Your task to perform on an android device: toggle data saver in the chrome app Image 0: 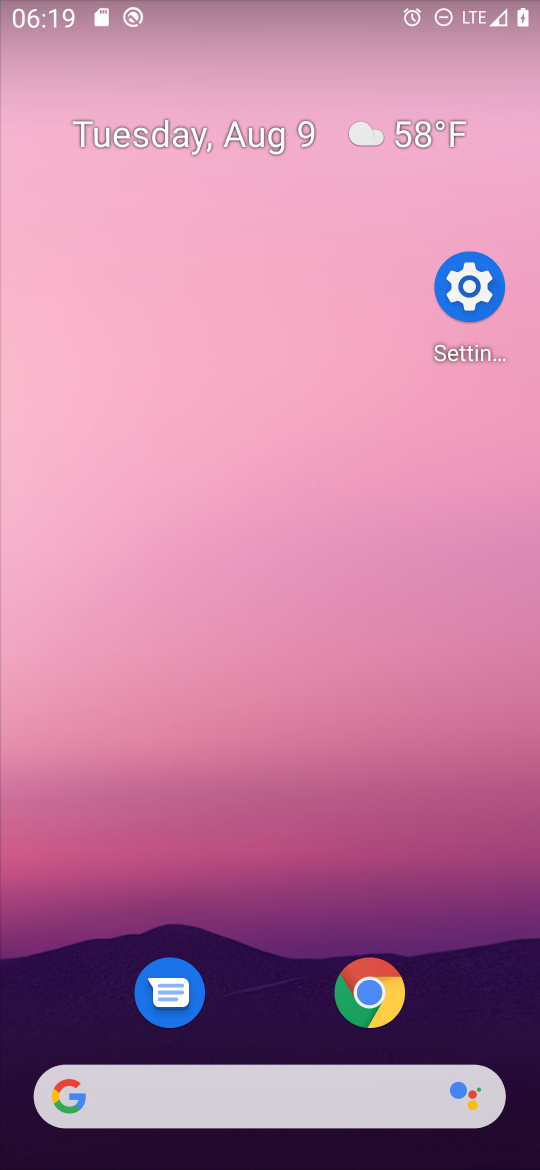
Step 0: drag from (344, 1117) to (268, 515)
Your task to perform on an android device: toggle data saver in the chrome app Image 1: 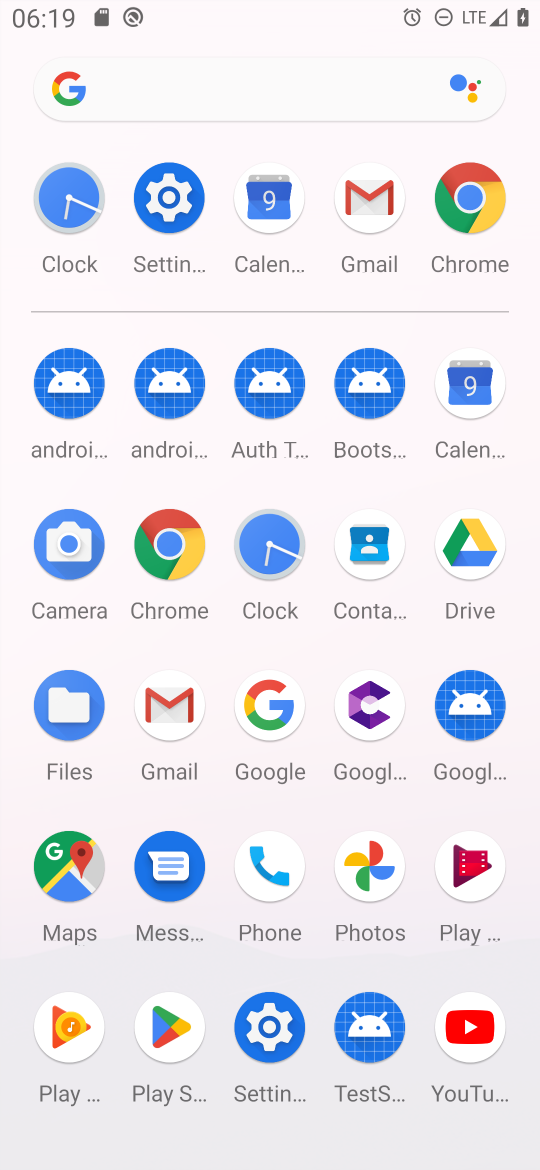
Step 1: click (156, 578)
Your task to perform on an android device: toggle data saver in the chrome app Image 2: 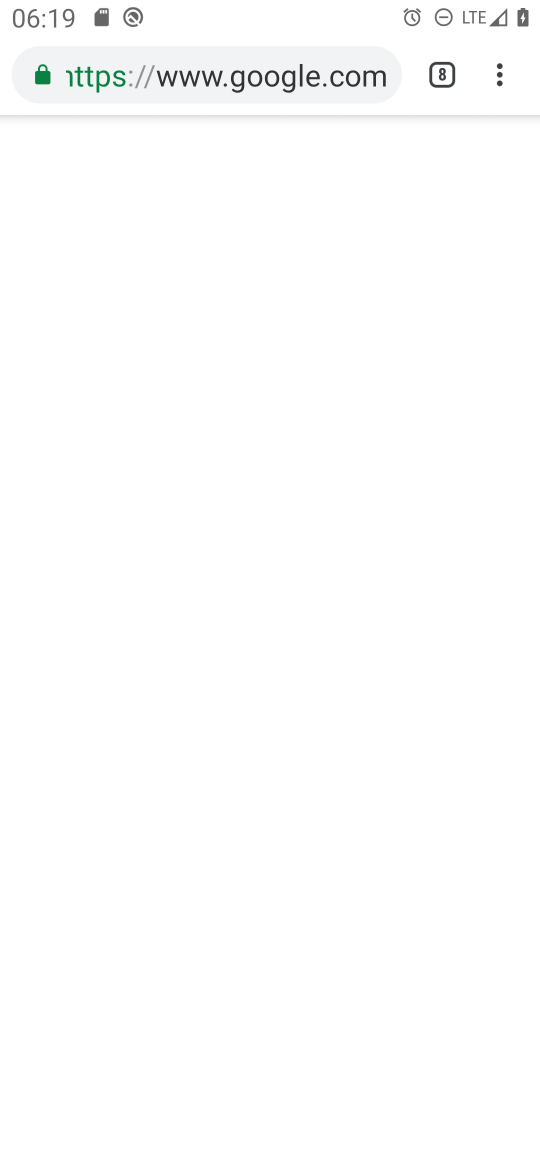
Step 2: click (496, 74)
Your task to perform on an android device: toggle data saver in the chrome app Image 3: 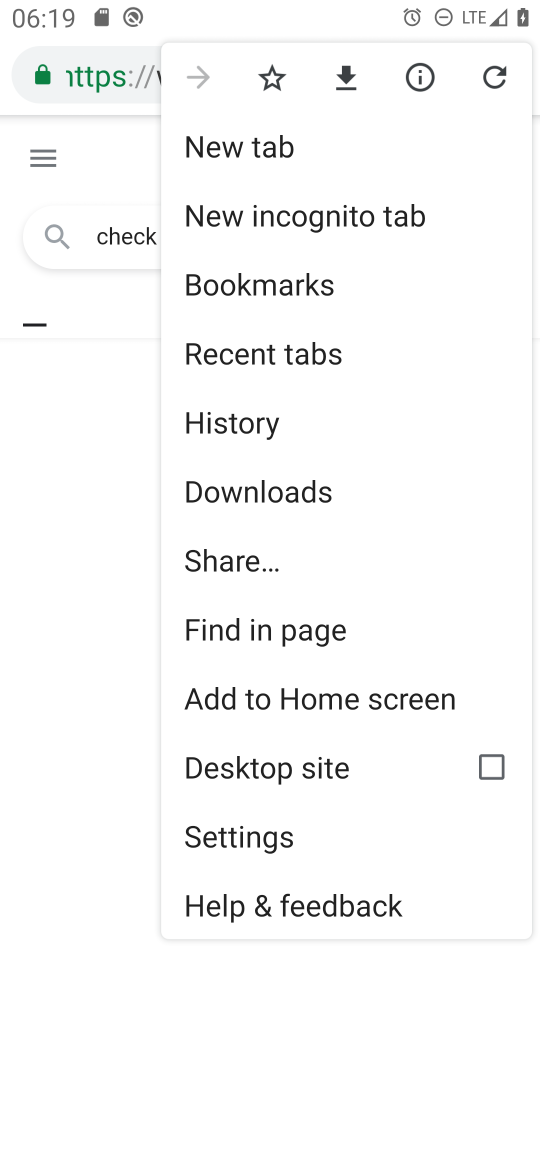
Step 3: click (250, 847)
Your task to perform on an android device: toggle data saver in the chrome app Image 4: 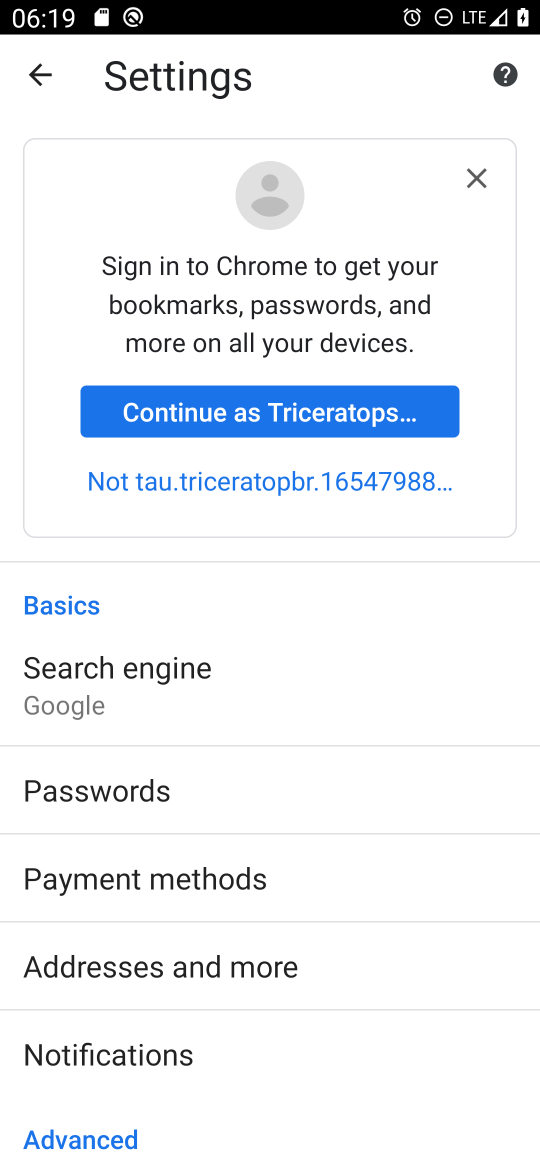
Step 4: drag from (300, 1059) to (263, 676)
Your task to perform on an android device: toggle data saver in the chrome app Image 5: 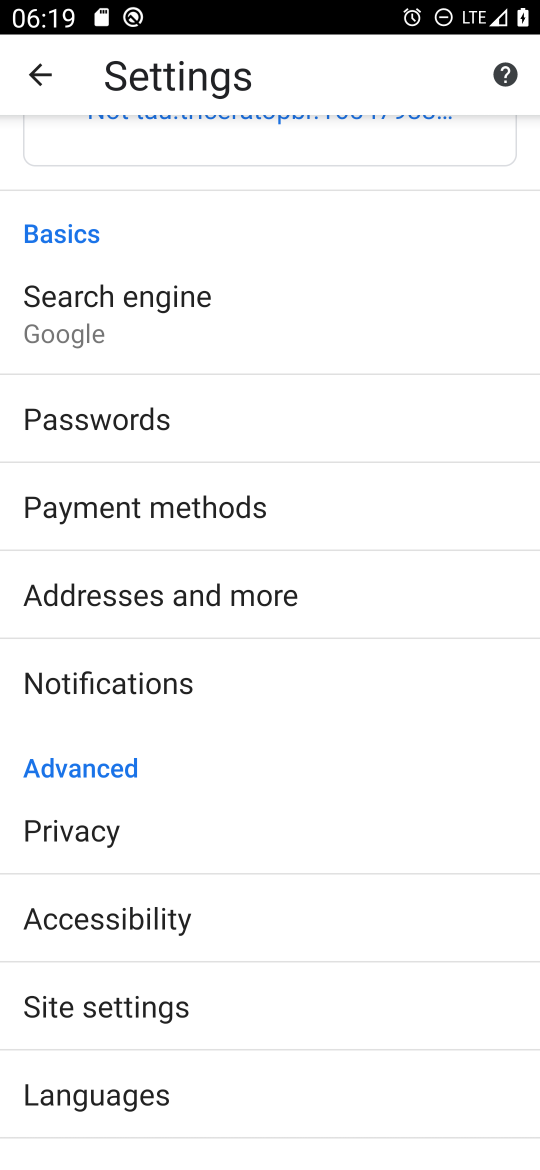
Step 5: drag from (389, 802) to (195, 164)
Your task to perform on an android device: toggle data saver in the chrome app Image 6: 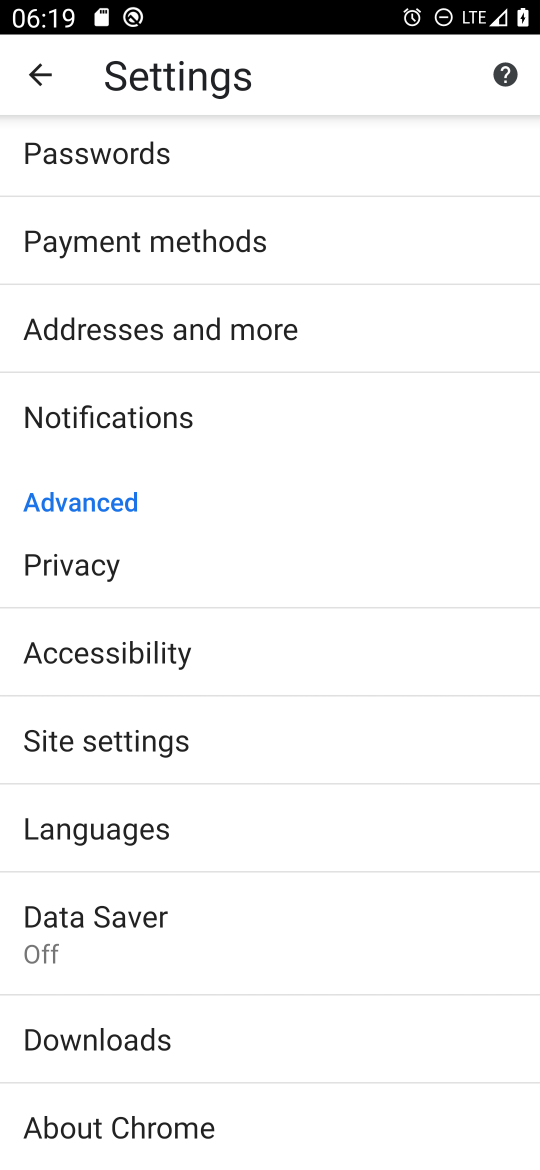
Step 6: click (130, 922)
Your task to perform on an android device: toggle data saver in the chrome app Image 7: 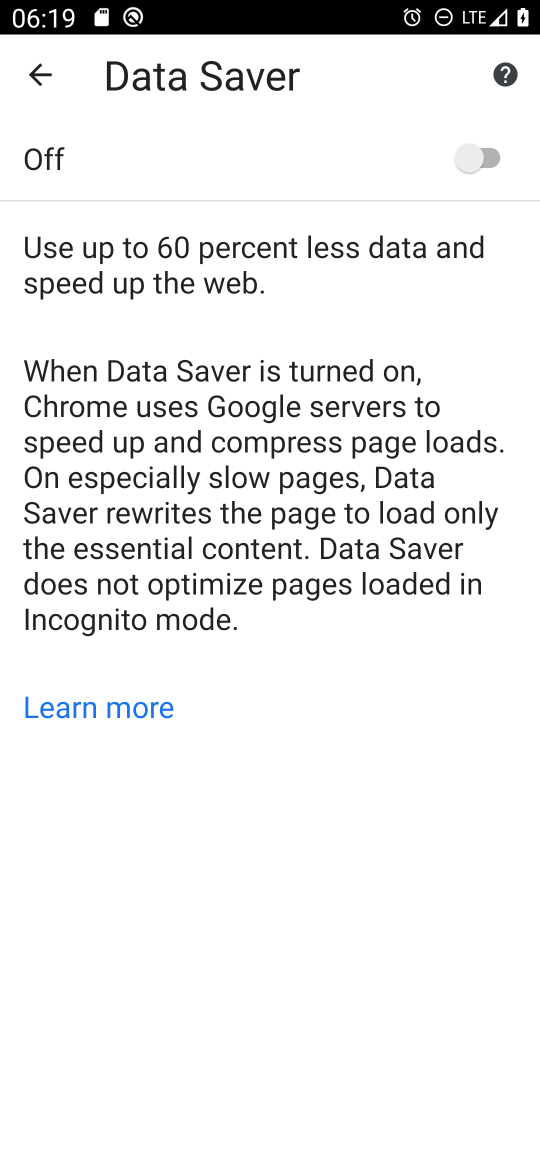
Step 7: click (484, 157)
Your task to perform on an android device: toggle data saver in the chrome app Image 8: 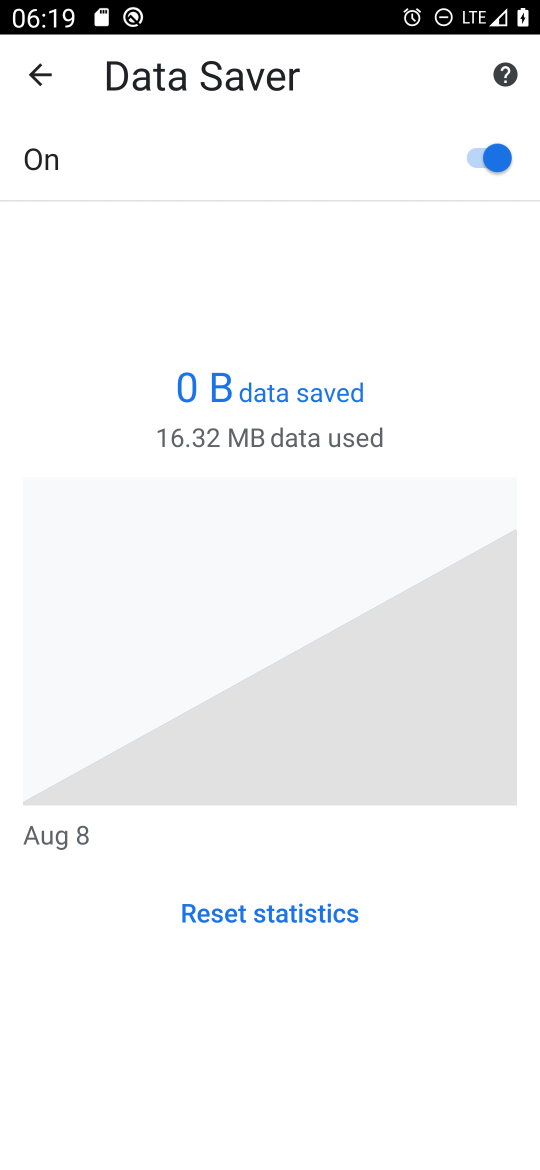
Step 8: task complete